Your task to perform on an android device: Go to accessibility settings Image 0: 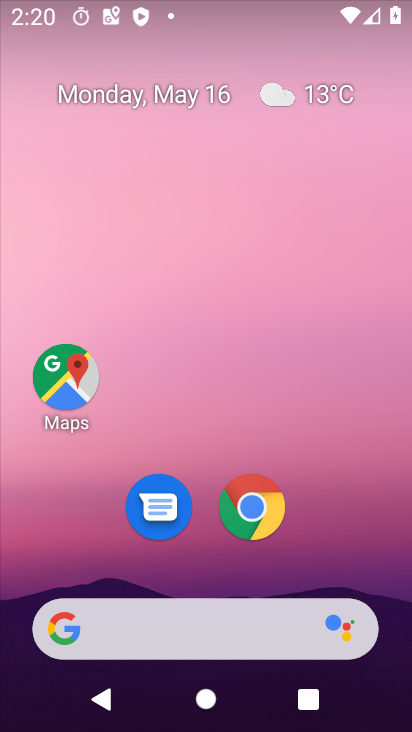
Step 0: drag from (368, 550) to (357, 86)
Your task to perform on an android device: Go to accessibility settings Image 1: 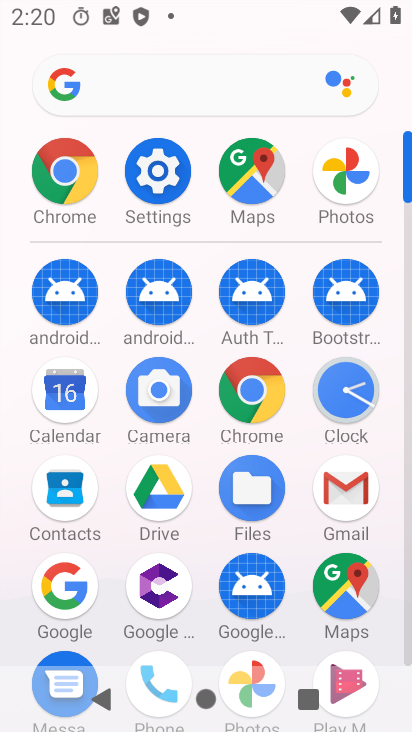
Step 1: click (166, 191)
Your task to perform on an android device: Go to accessibility settings Image 2: 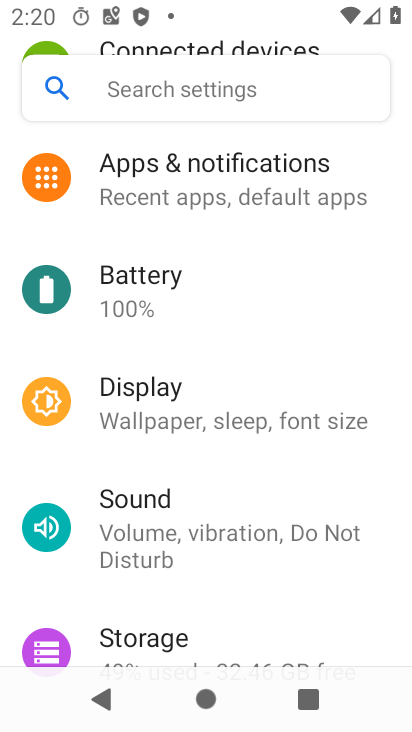
Step 2: drag from (369, 258) to (364, 403)
Your task to perform on an android device: Go to accessibility settings Image 3: 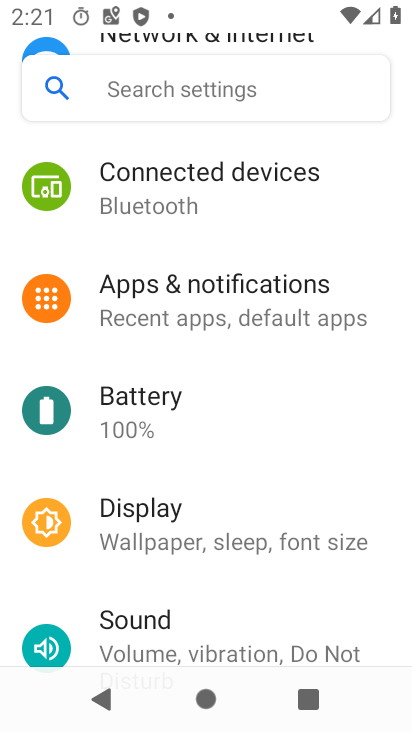
Step 3: drag from (366, 213) to (360, 406)
Your task to perform on an android device: Go to accessibility settings Image 4: 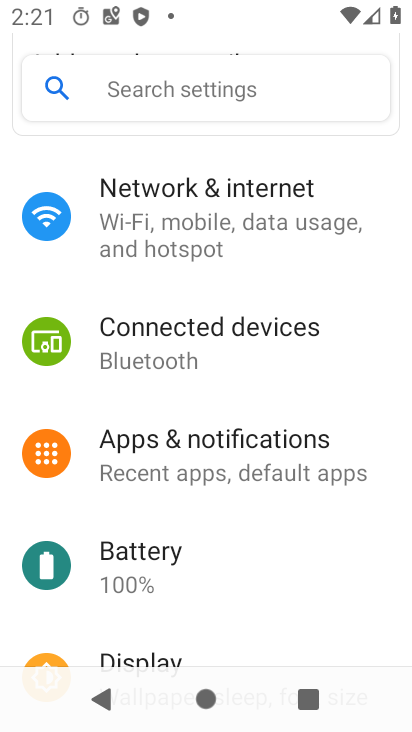
Step 4: drag from (369, 280) to (365, 421)
Your task to perform on an android device: Go to accessibility settings Image 5: 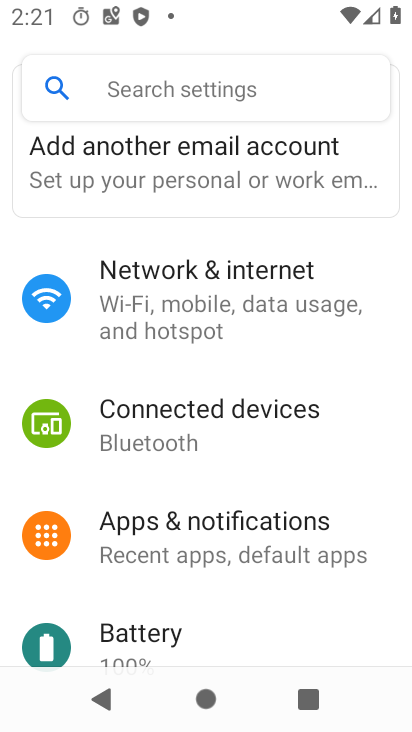
Step 5: drag from (360, 501) to (369, 334)
Your task to perform on an android device: Go to accessibility settings Image 6: 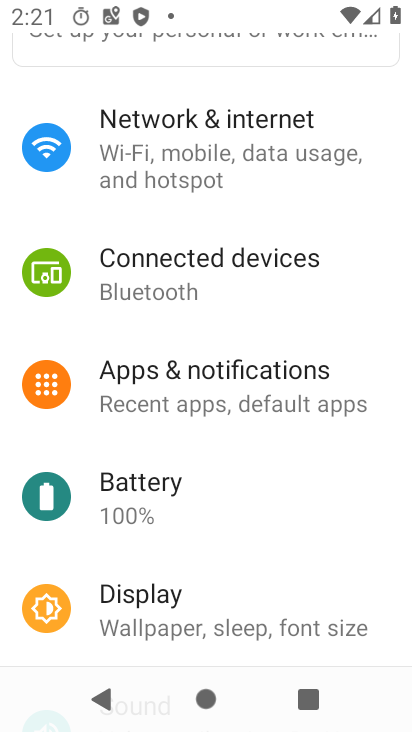
Step 6: drag from (335, 557) to (335, 328)
Your task to perform on an android device: Go to accessibility settings Image 7: 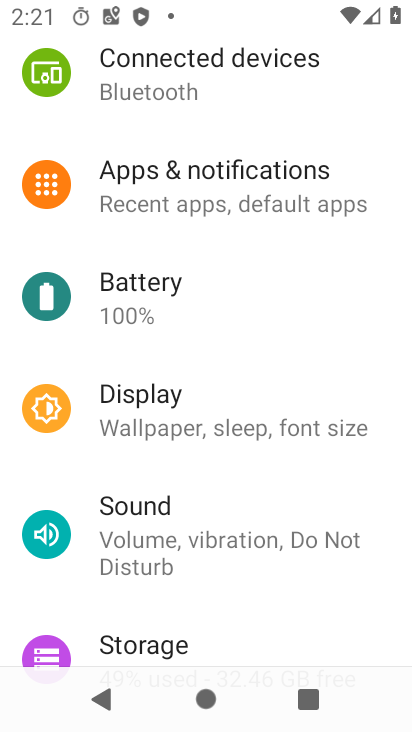
Step 7: drag from (339, 605) to (343, 433)
Your task to perform on an android device: Go to accessibility settings Image 8: 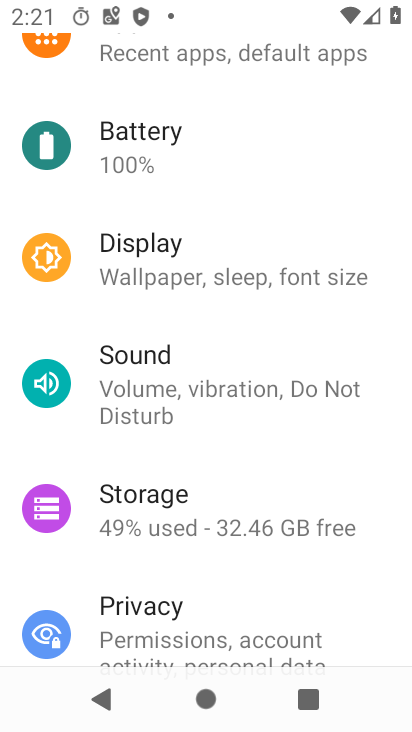
Step 8: drag from (320, 596) to (321, 436)
Your task to perform on an android device: Go to accessibility settings Image 9: 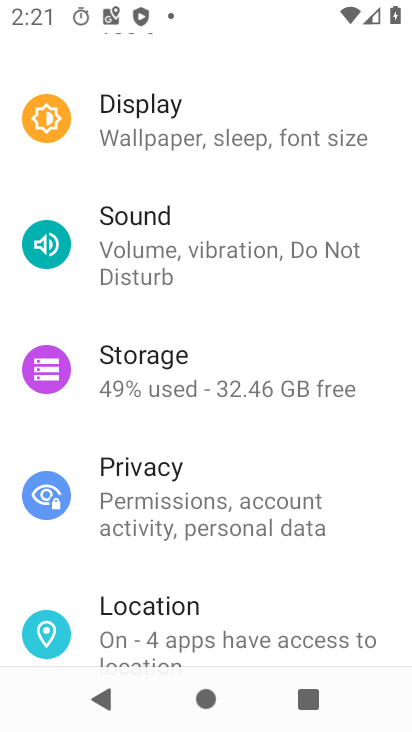
Step 9: drag from (330, 605) to (332, 470)
Your task to perform on an android device: Go to accessibility settings Image 10: 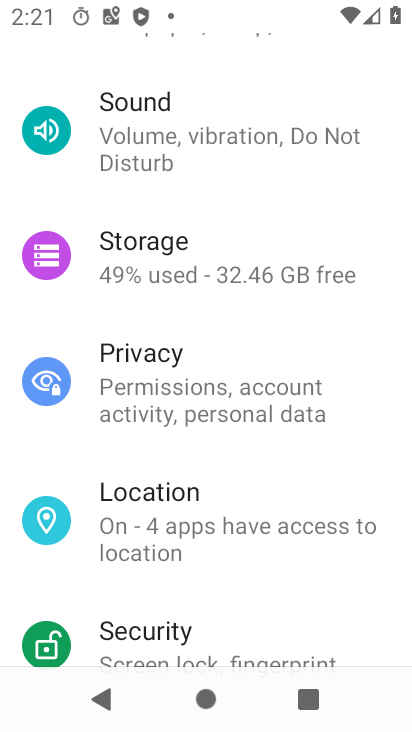
Step 10: drag from (328, 618) to (332, 440)
Your task to perform on an android device: Go to accessibility settings Image 11: 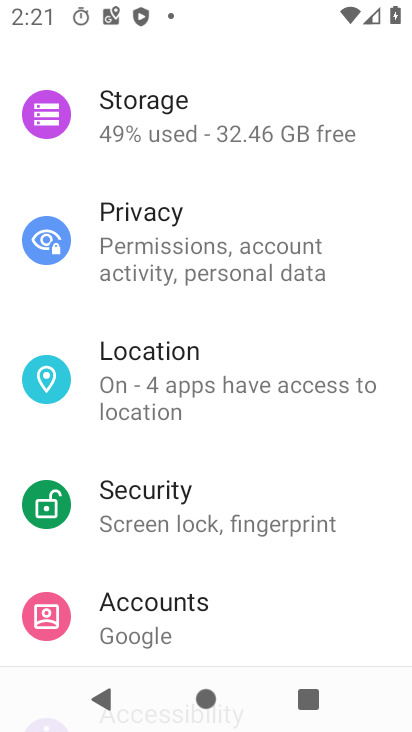
Step 11: drag from (324, 614) to (327, 441)
Your task to perform on an android device: Go to accessibility settings Image 12: 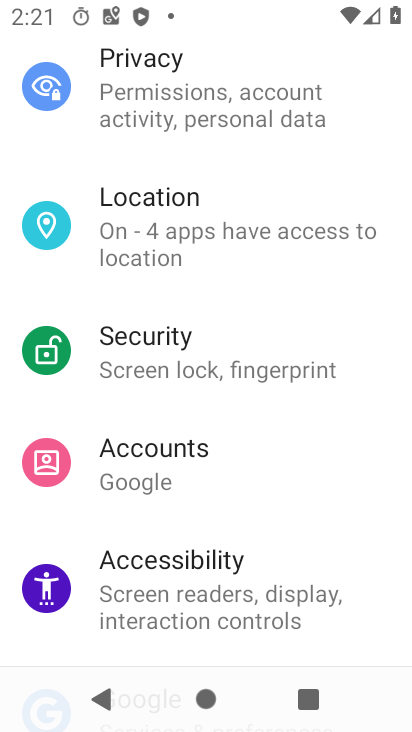
Step 12: drag from (339, 636) to (342, 462)
Your task to perform on an android device: Go to accessibility settings Image 13: 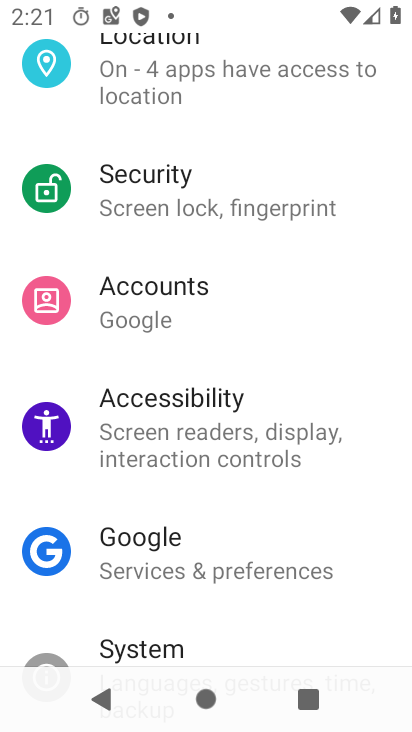
Step 13: drag from (360, 609) to (361, 487)
Your task to perform on an android device: Go to accessibility settings Image 14: 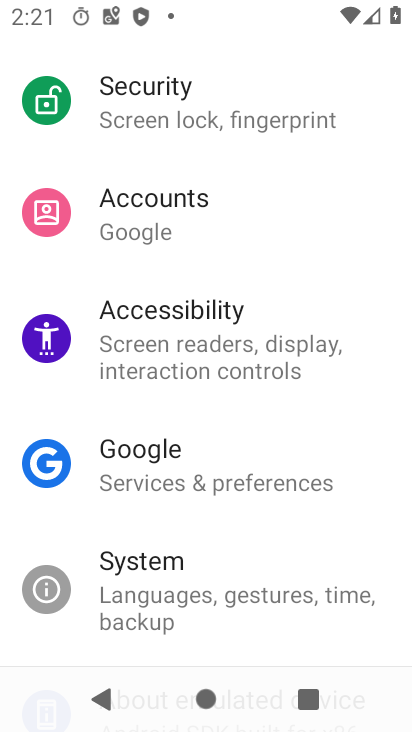
Step 14: click (245, 337)
Your task to perform on an android device: Go to accessibility settings Image 15: 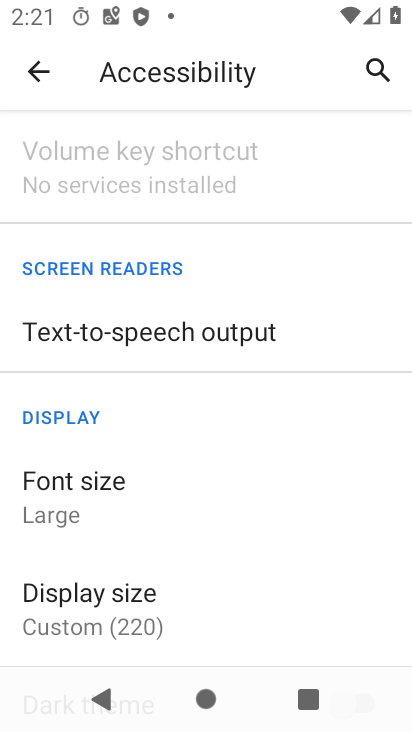
Step 15: task complete